Your task to perform on an android device: Open the stopwatch Image 0: 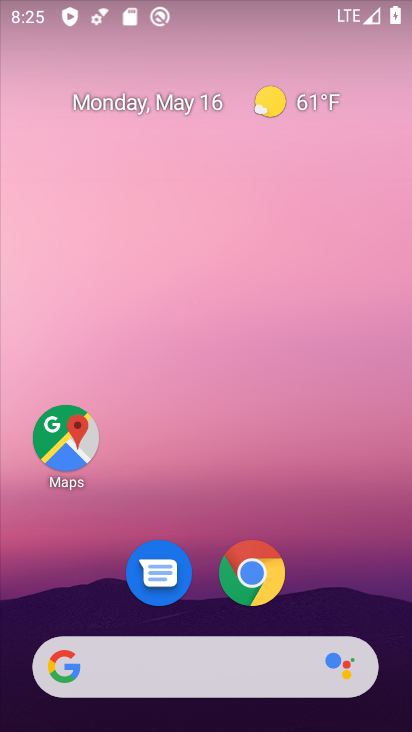
Step 0: drag from (199, 697) to (199, 208)
Your task to perform on an android device: Open the stopwatch Image 1: 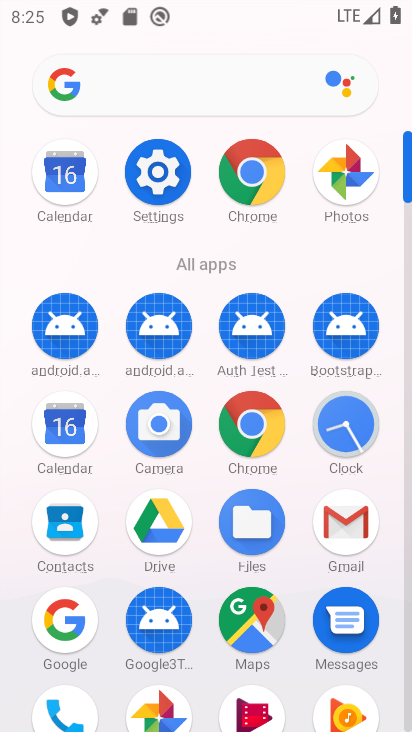
Step 1: click (345, 424)
Your task to perform on an android device: Open the stopwatch Image 2: 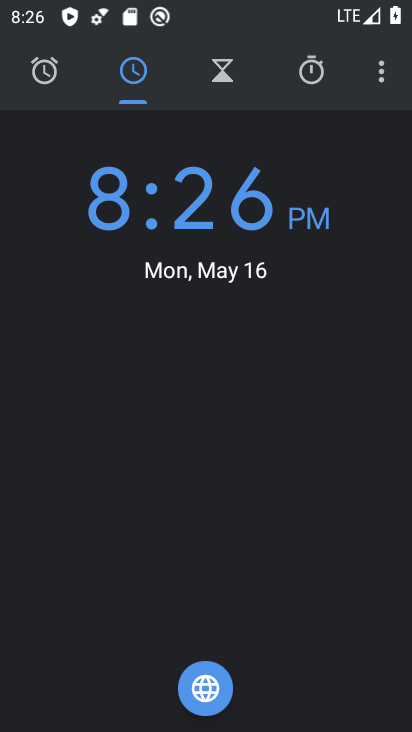
Step 2: click (306, 61)
Your task to perform on an android device: Open the stopwatch Image 3: 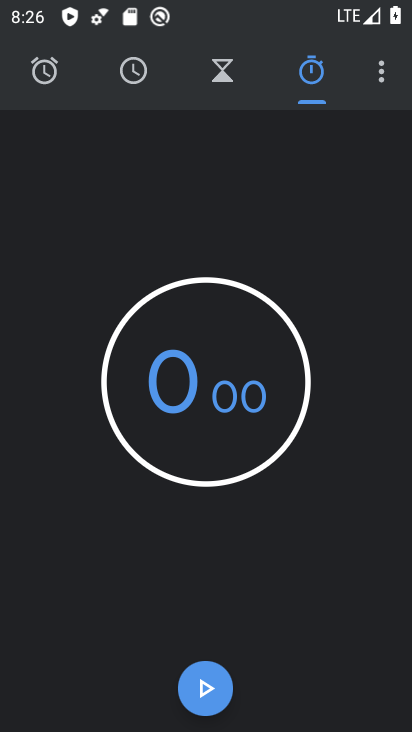
Step 3: task complete